Your task to perform on an android device: open the mobile data screen to see how much data has been used Image 0: 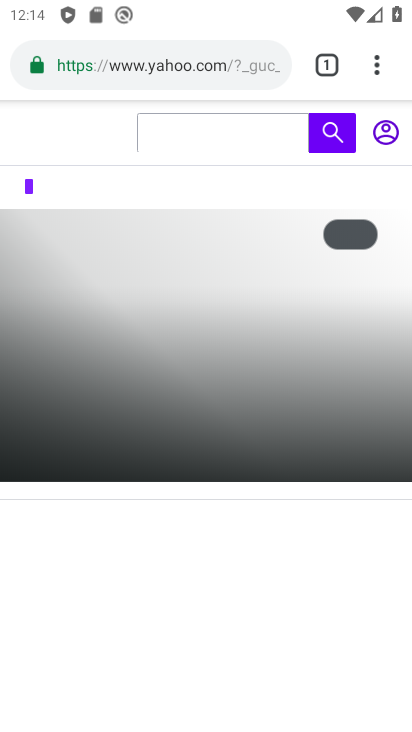
Step 0: press home button
Your task to perform on an android device: open the mobile data screen to see how much data has been used Image 1: 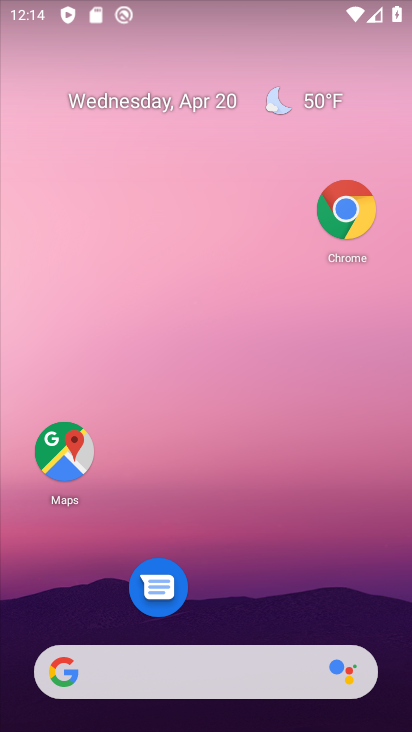
Step 1: drag from (231, 612) to (289, 80)
Your task to perform on an android device: open the mobile data screen to see how much data has been used Image 2: 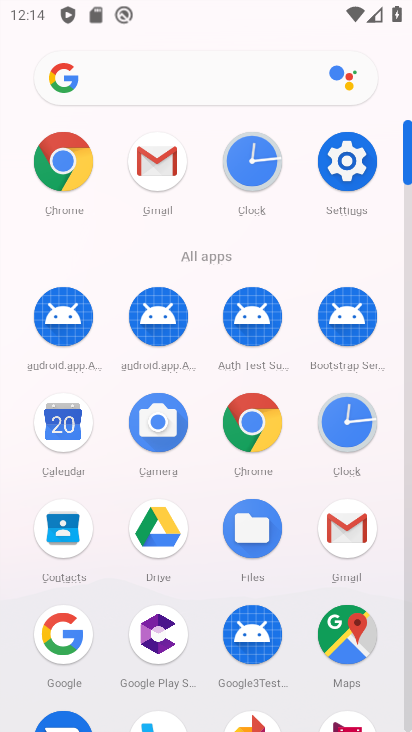
Step 2: click (344, 165)
Your task to perform on an android device: open the mobile data screen to see how much data has been used Image 3: 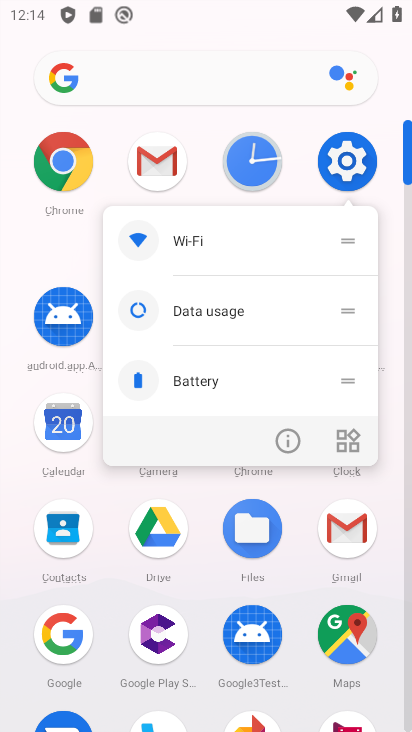
Step 3: click (344, 164)
Your task to perform on an android device: open the mobile data screen to see how much data has been used Image 4: 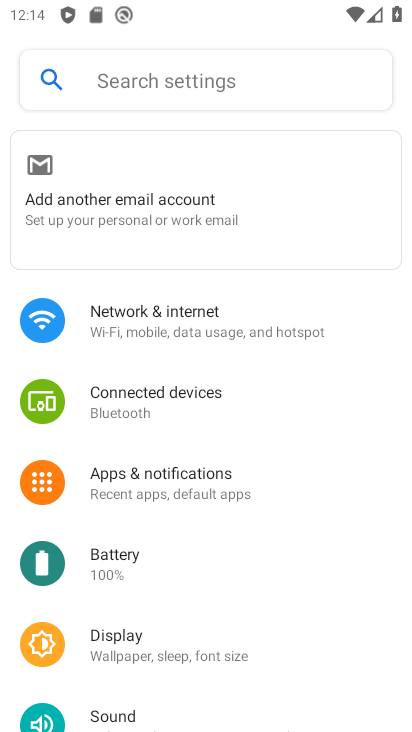
Step 4: click (146, 335)
Your task to perform on an android device: open the mobile data screen to see how much data has been used Image 5: 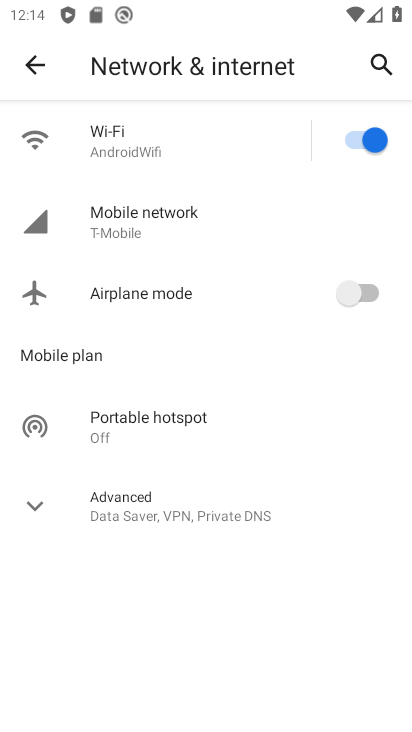
Step 5: click (131, 235)
Your task to perform on an android device: open the mobile data screen to see how much data has been used Image 6: 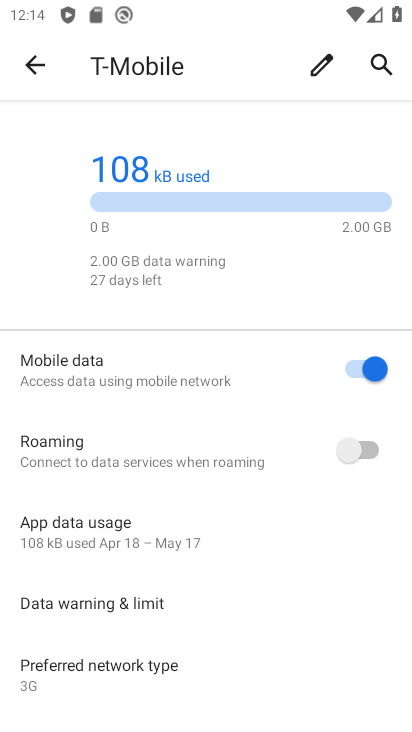
Step 6: click (135, 549)
Your task to perform on an android device: open the mobile data screen to see how much data has been used Image 7: 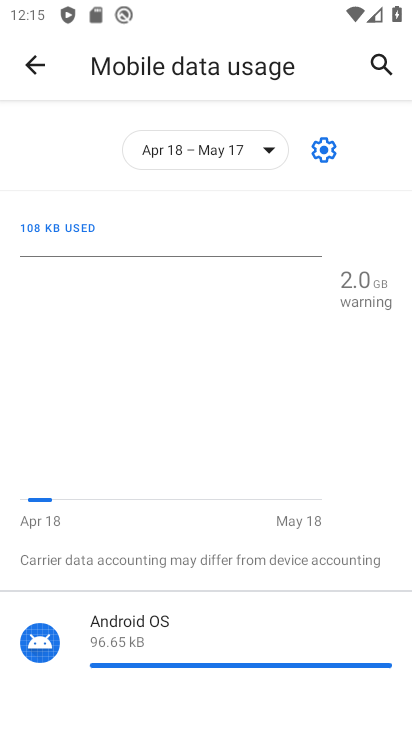
Step 7: task complete